Your task to perform on an android device: change keyboard looks Image 0: 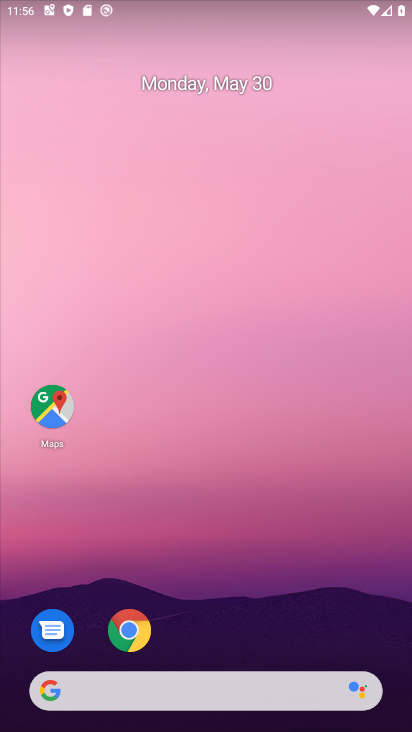
Step 0: press home button
Your task to perform on an android device: change keyboard looks Image 1: 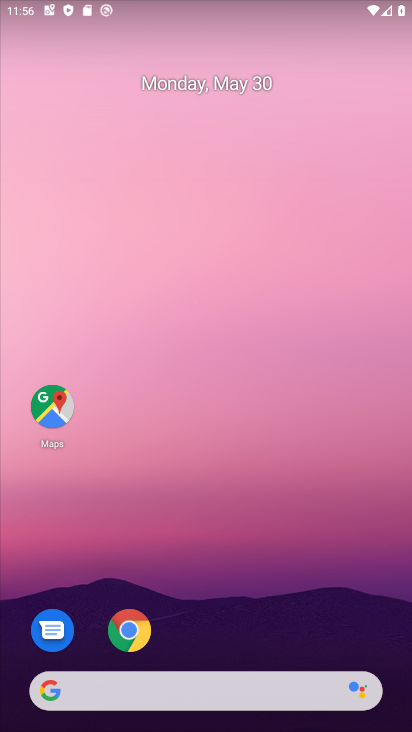
Step 1: drag from (149, 691) to (355, 4)
Your task to perform on an android device: change keyboard looks Image 2: 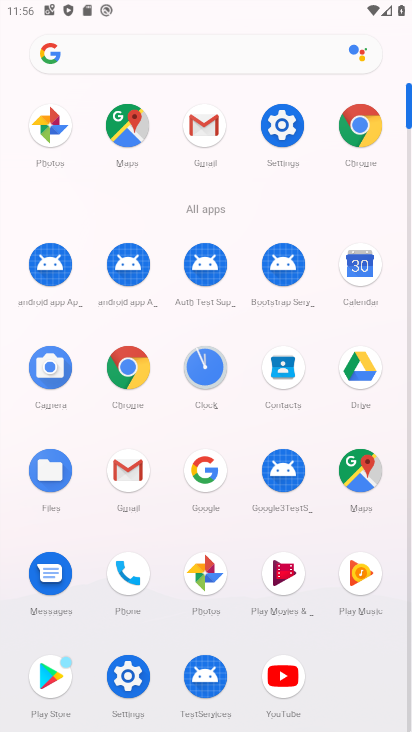
Step 2: click (281, 131)
Your task to perform on an android device: change keyboard looks Image 3: 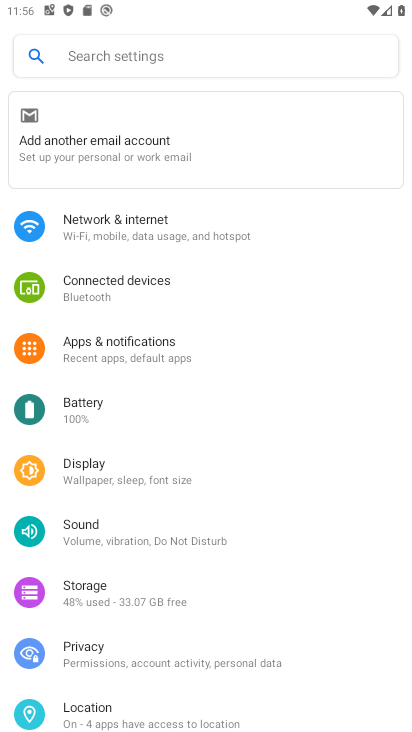
Step 3: drag from (304, 648) to (399, 52)
Your task to perform on an android device: change keyboard looks Image 4: 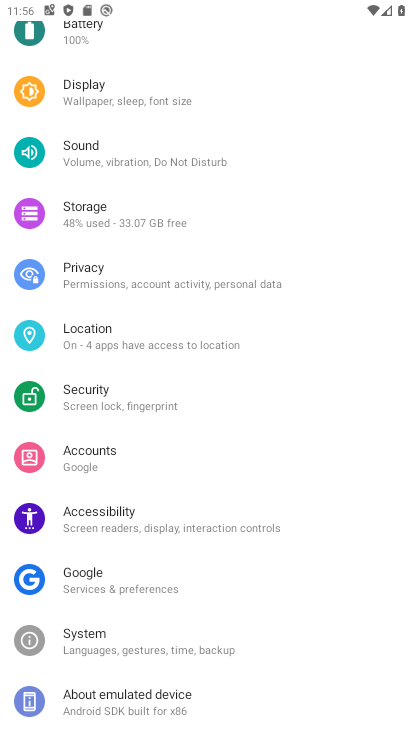
Step 4: click (125, 636)
Your task to perform on an android device: change keyboard looks Image 5: 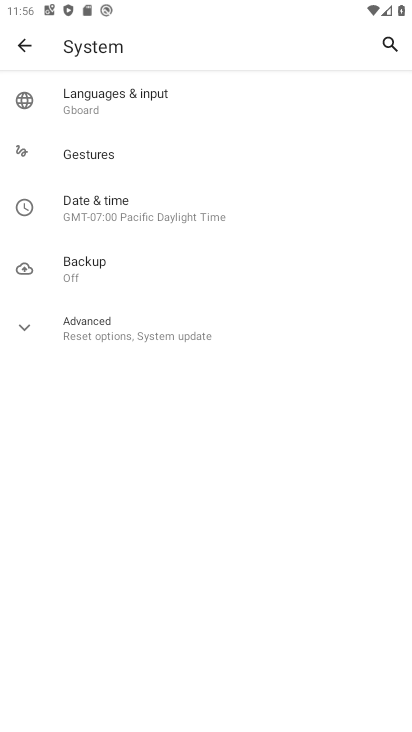
Step 5: click (136, 99)
Your task to perform on an android device: change keyboard looks Image 6: 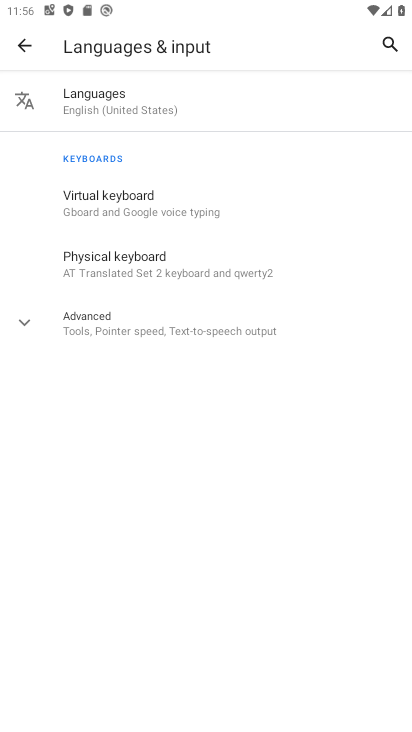
Step 6: click (120, 210)
Your task to perform on an android device: change keyboard looks Image 7: 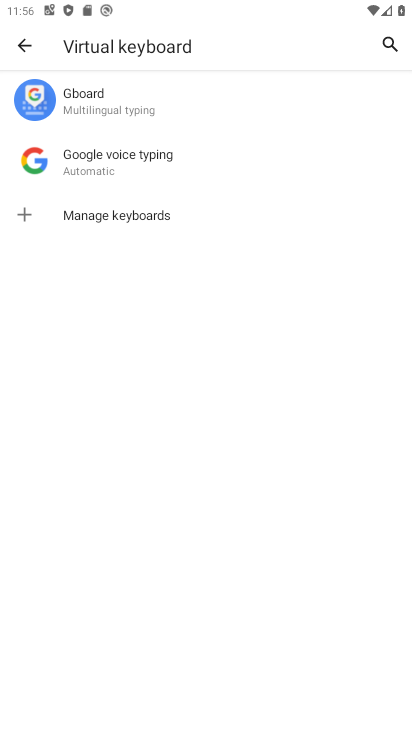
Step 7: click (126, 109)
Your task to perform on an android device: change keyboard looks Image 8: 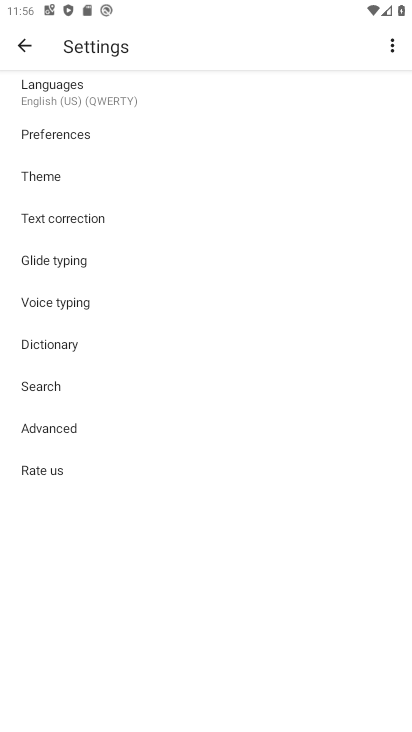
Step 8: click (41, 178)
Your task to perform on an android device: change keyboard looks Image 9: 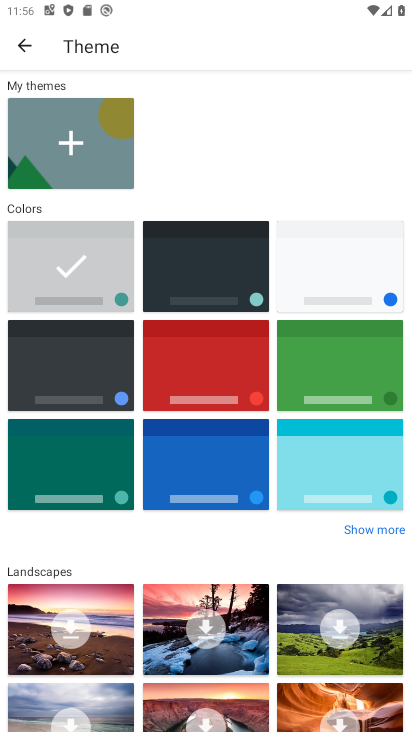
Step 9: click (333, 367)
Your task to perform on an android device: change keyboard looks Image 10: 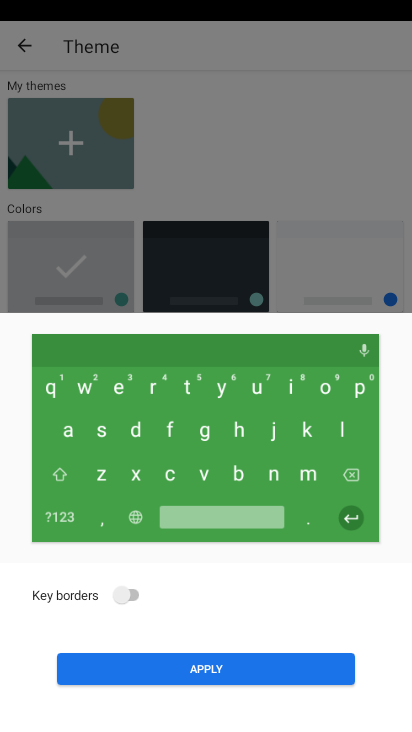
Step 10: click (197, 685)
Your task to perform on an android device: change keyboard looks Image 11: 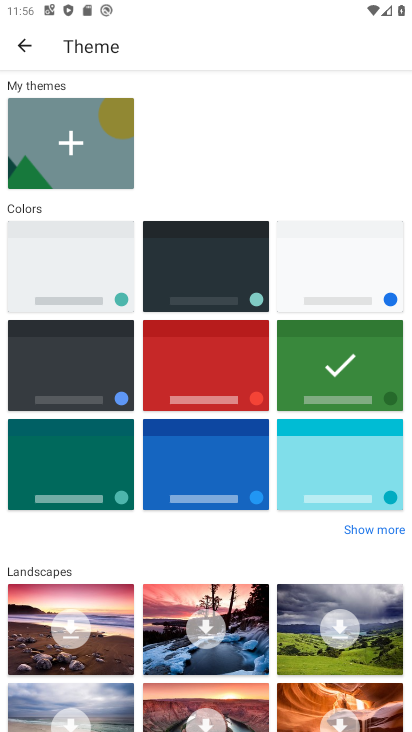
Step 11: task complete